Your task to perform on an android device: See recent photos Image 0: 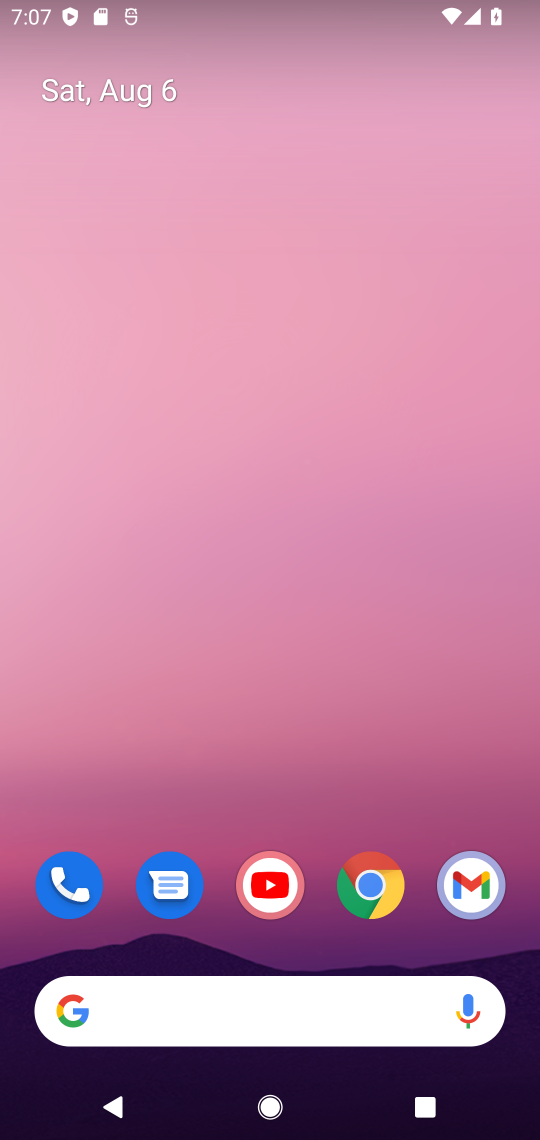
Step 0: drag from (329, 629) to (527, 548)
Your task to perform on an android device: See recent photos Image 1: 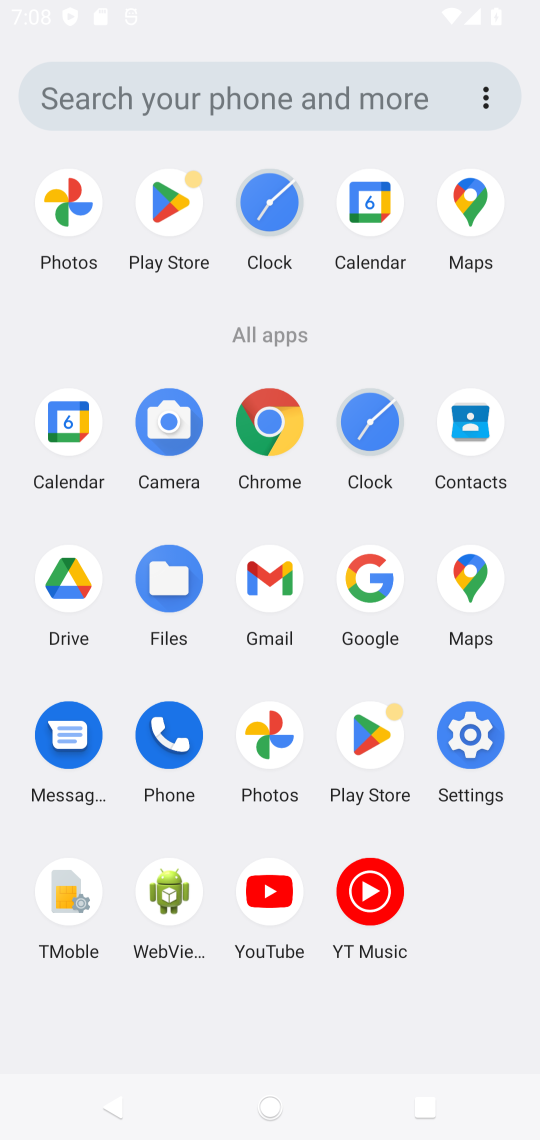
Step 1: click (270, 749)
Your task to perform on an android device: See recent photos Image 2: 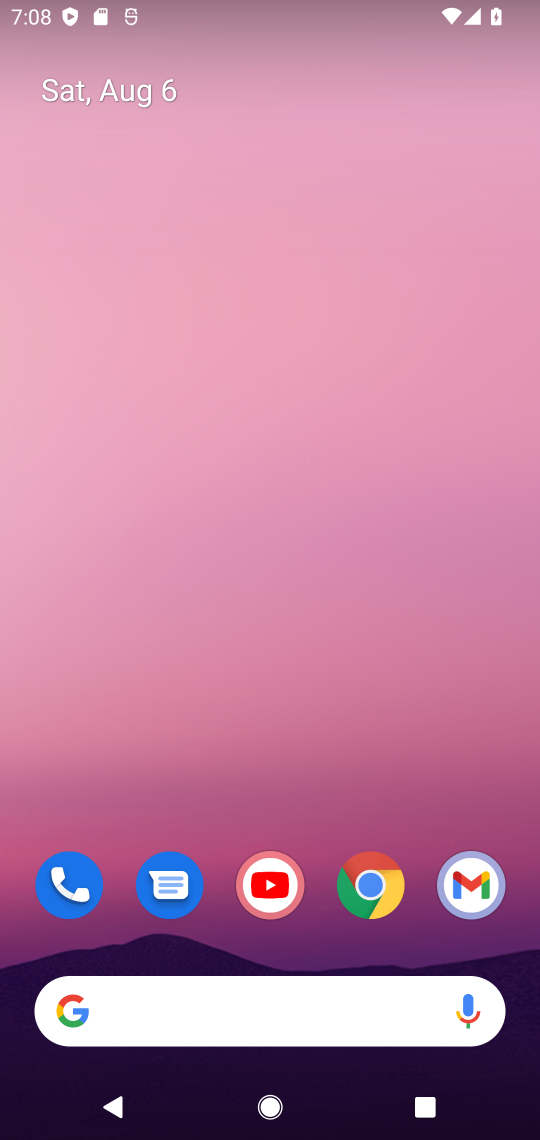
Step 2: drag from (318, 849) to (281, 0)
Your task to perform on an android device: See recent photos Image 3: 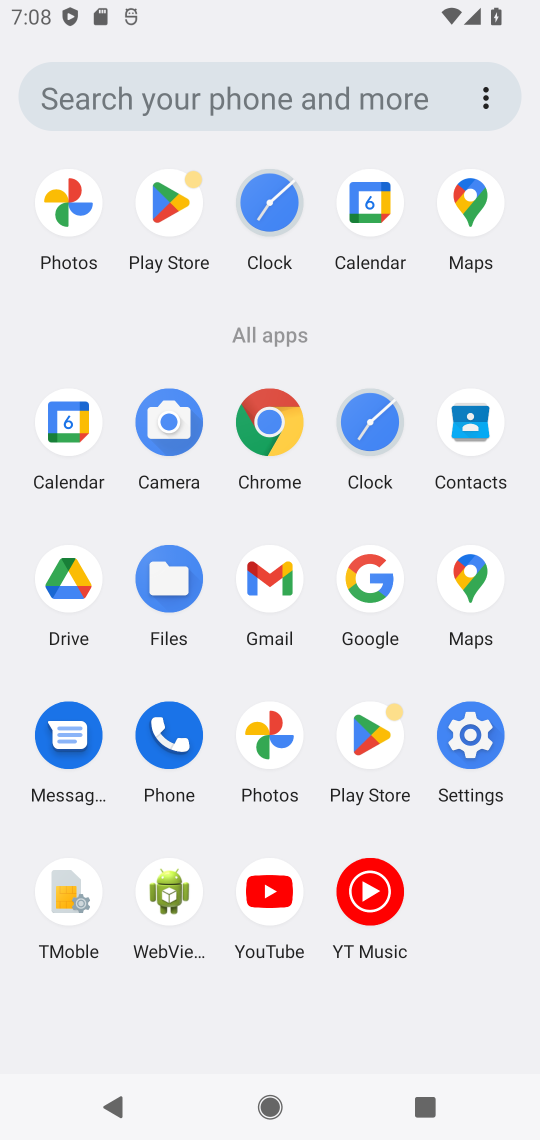
Step 3: click (264, 740)
Your task to perform on an android device: See recent photos Image 4: 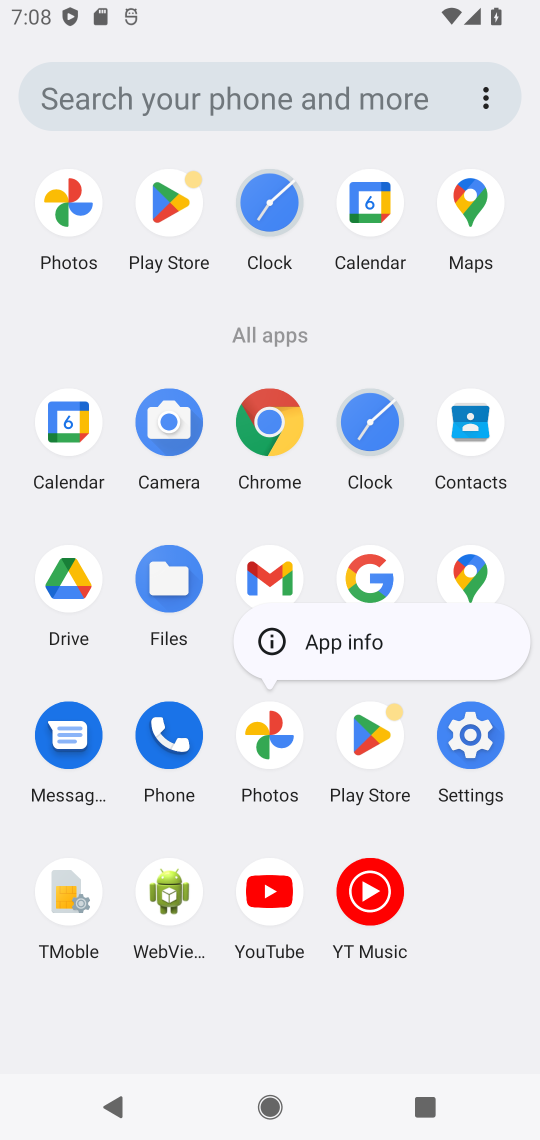
Step 4: click (266, 738)
Your task to perform on an android device: See recent photos Image 5: 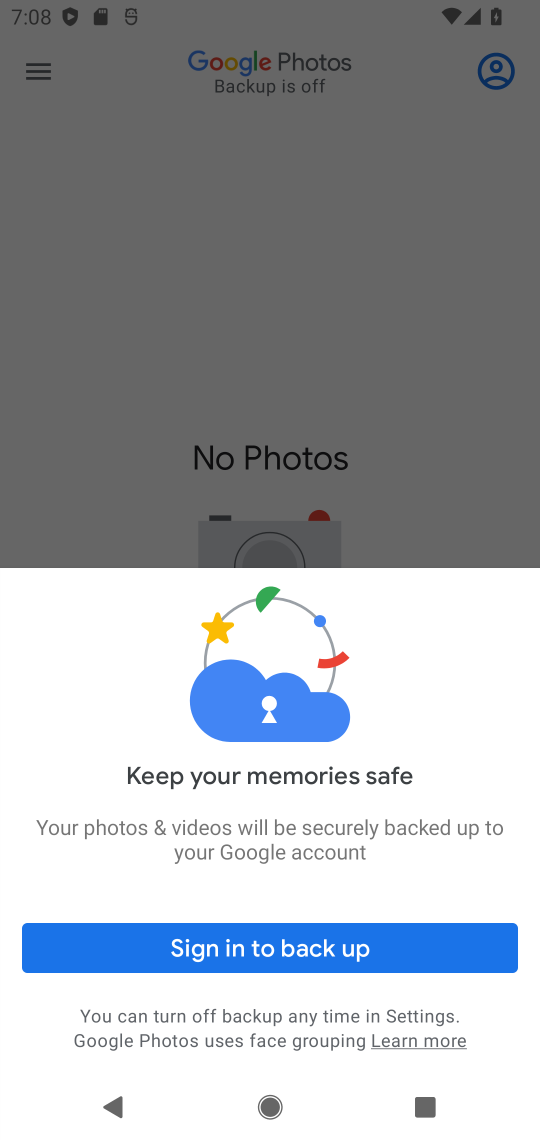
Step 5: click (361, 958)
Your task to perform on an android device: See recent photos Image 6: 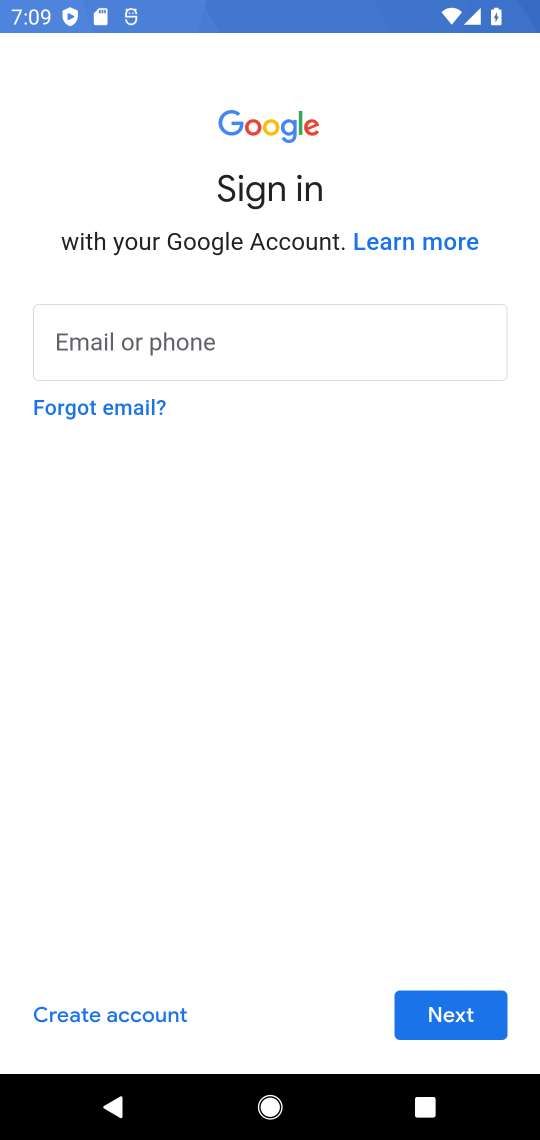
Step 6: task complete